Your task to perform on an android device: Open Google Chrome Image 0: 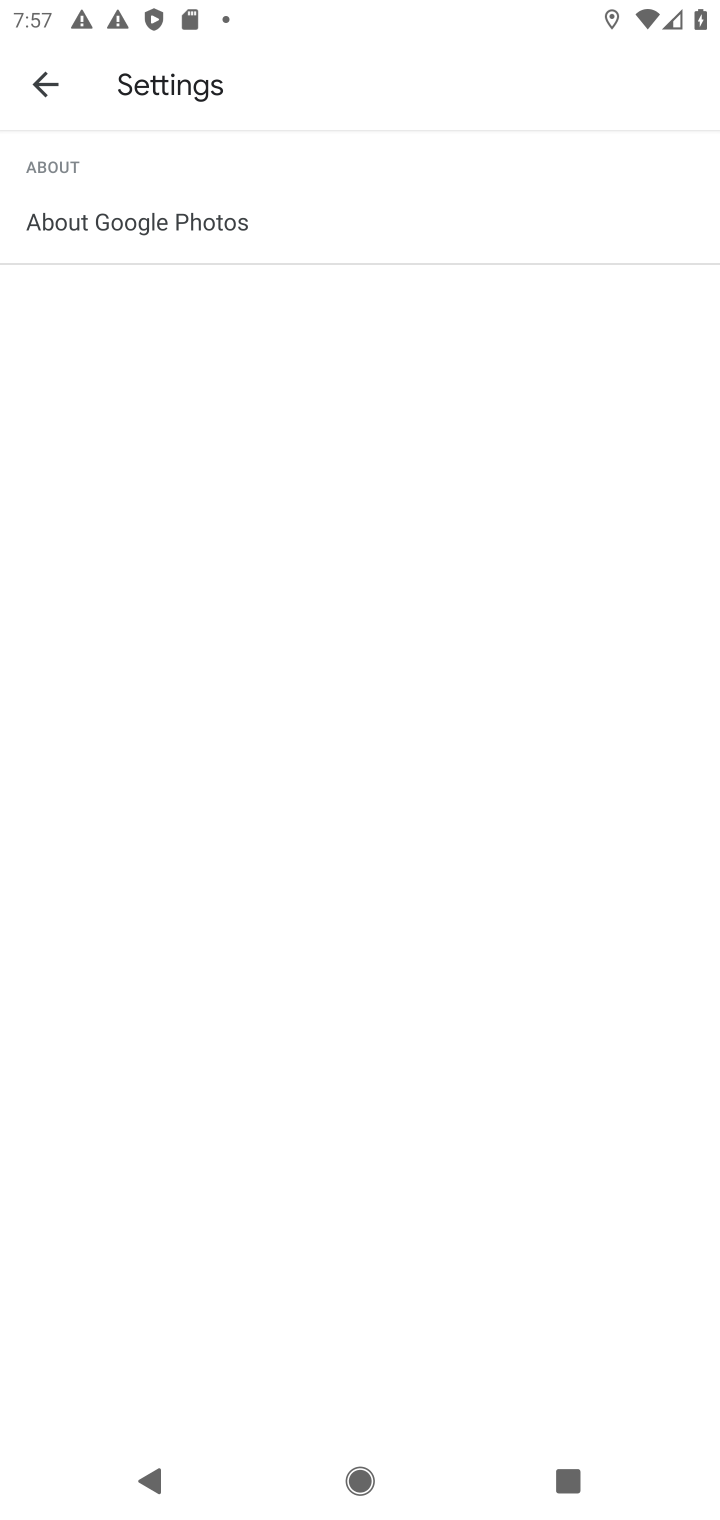
Step 0: press home button
Your task to perform on an android device: Open Google Chrome Image 1: 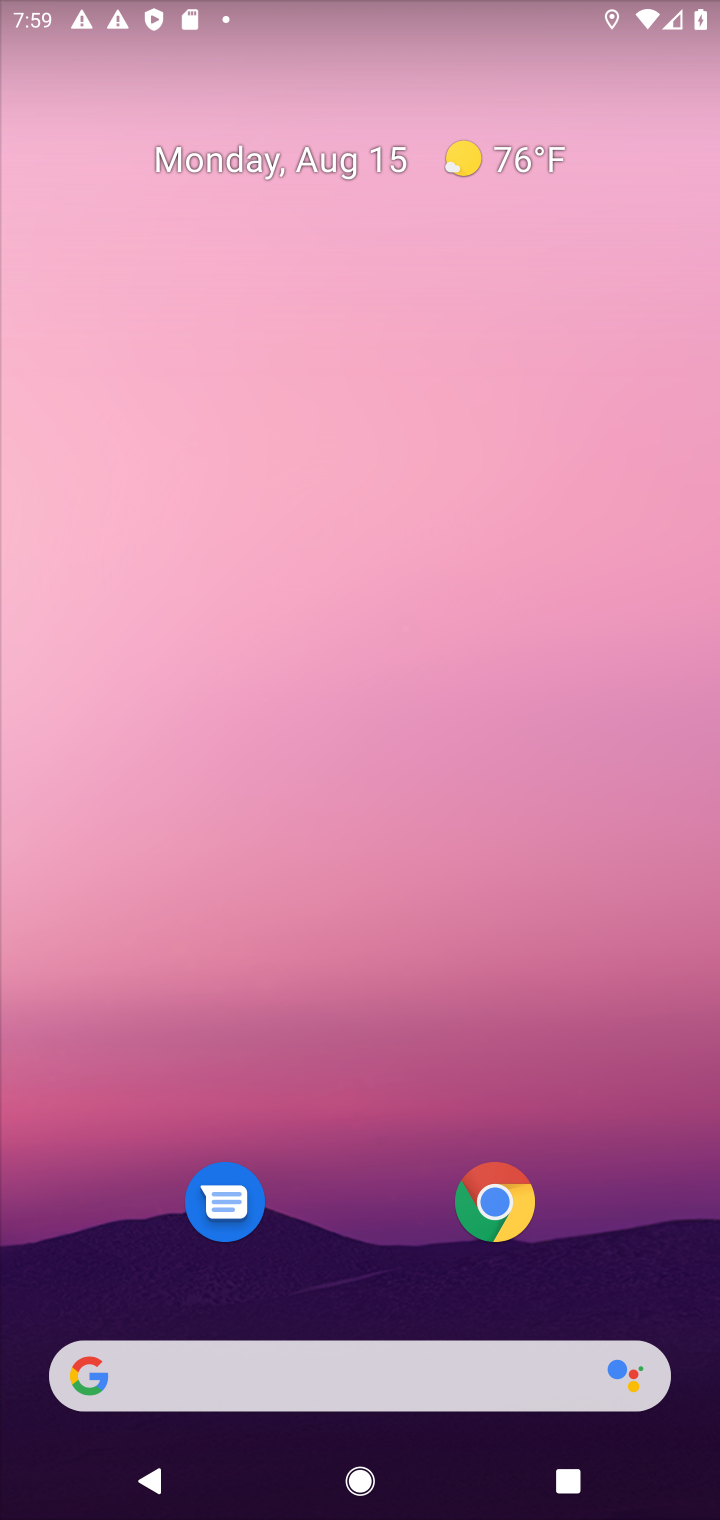
Step 1: drag from (663, 1267) to (345, 118)
Your task to perform on an android device: Open Google Chrome Image 2: 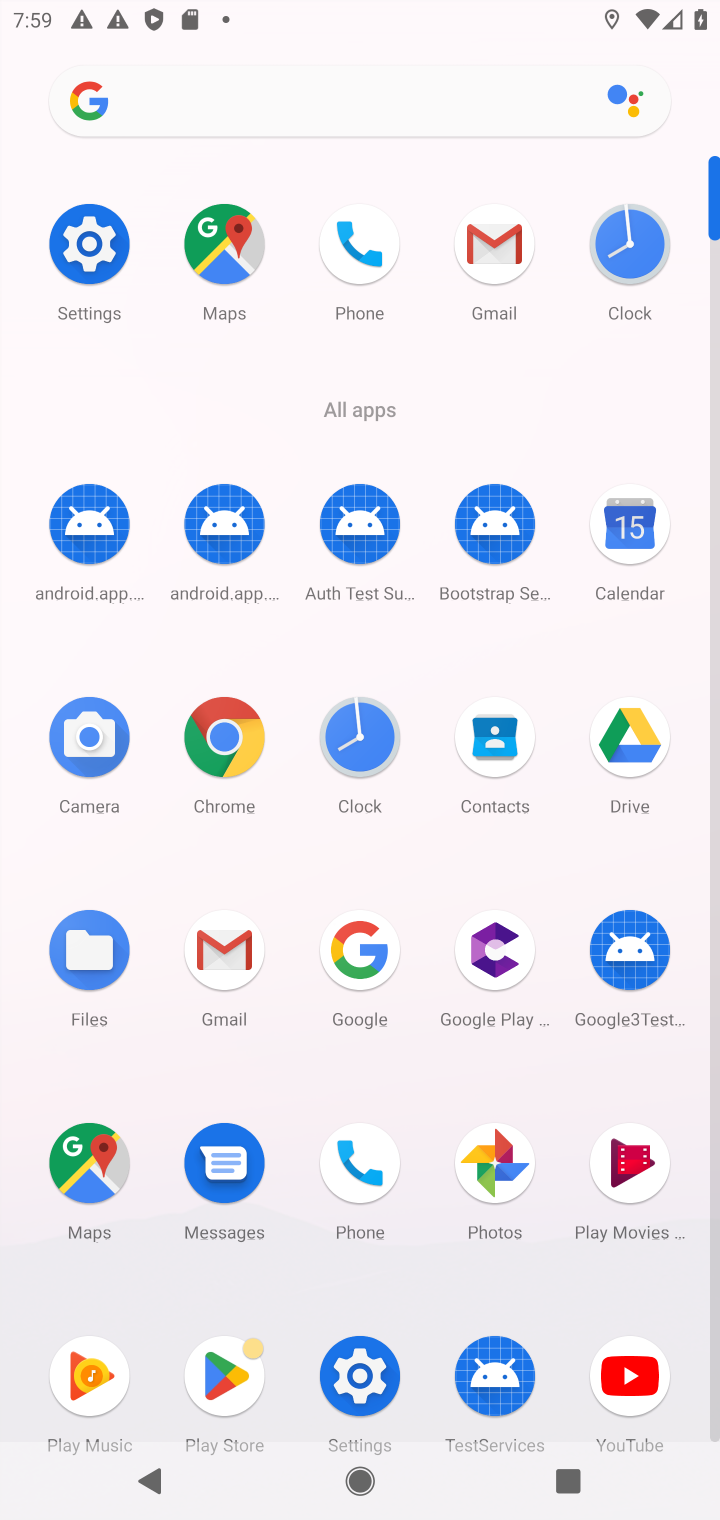
Step 2: click (374, 949)
Your task to perform on an android device: Open Google Chrome Image 3: 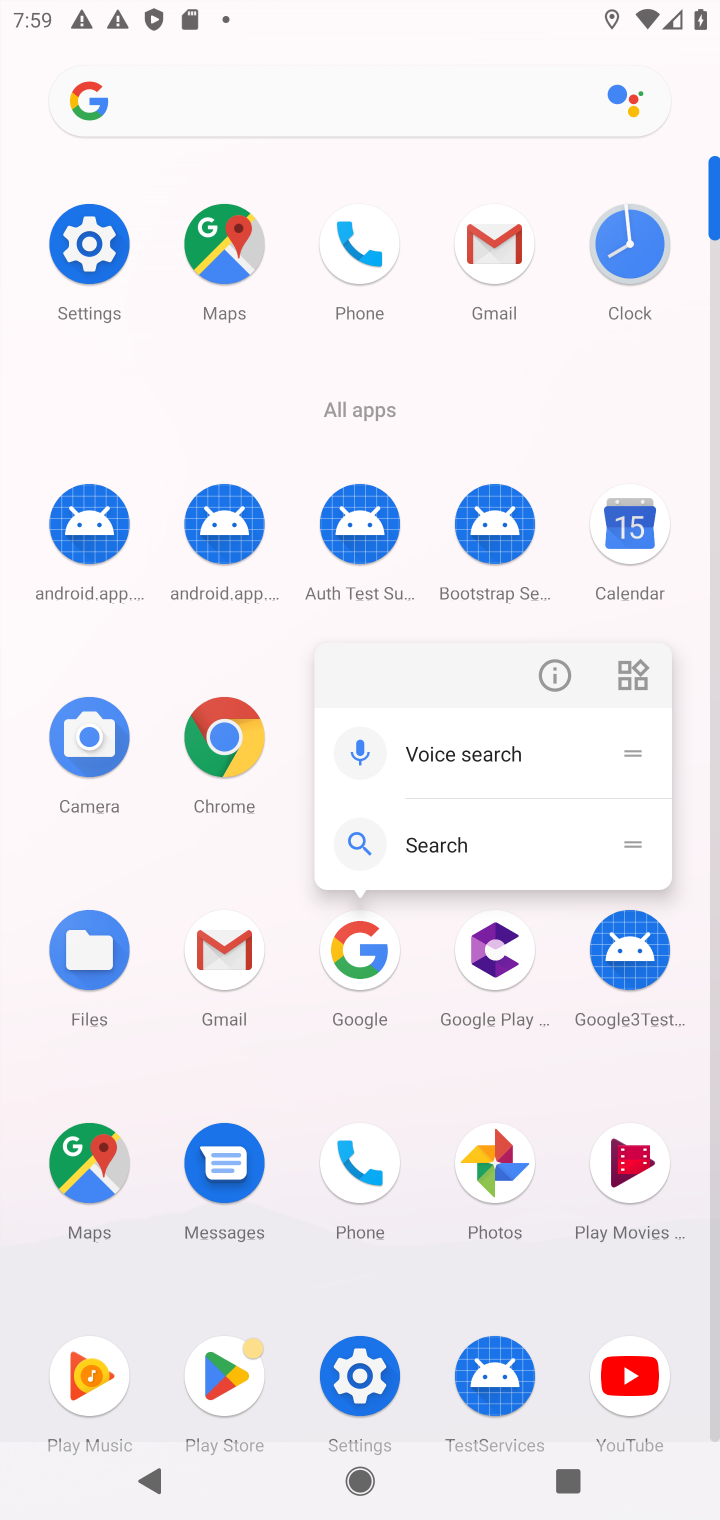
Step 3: click (373, 951)
Your task to perform on an android device: Open Google Chrome Image 4: 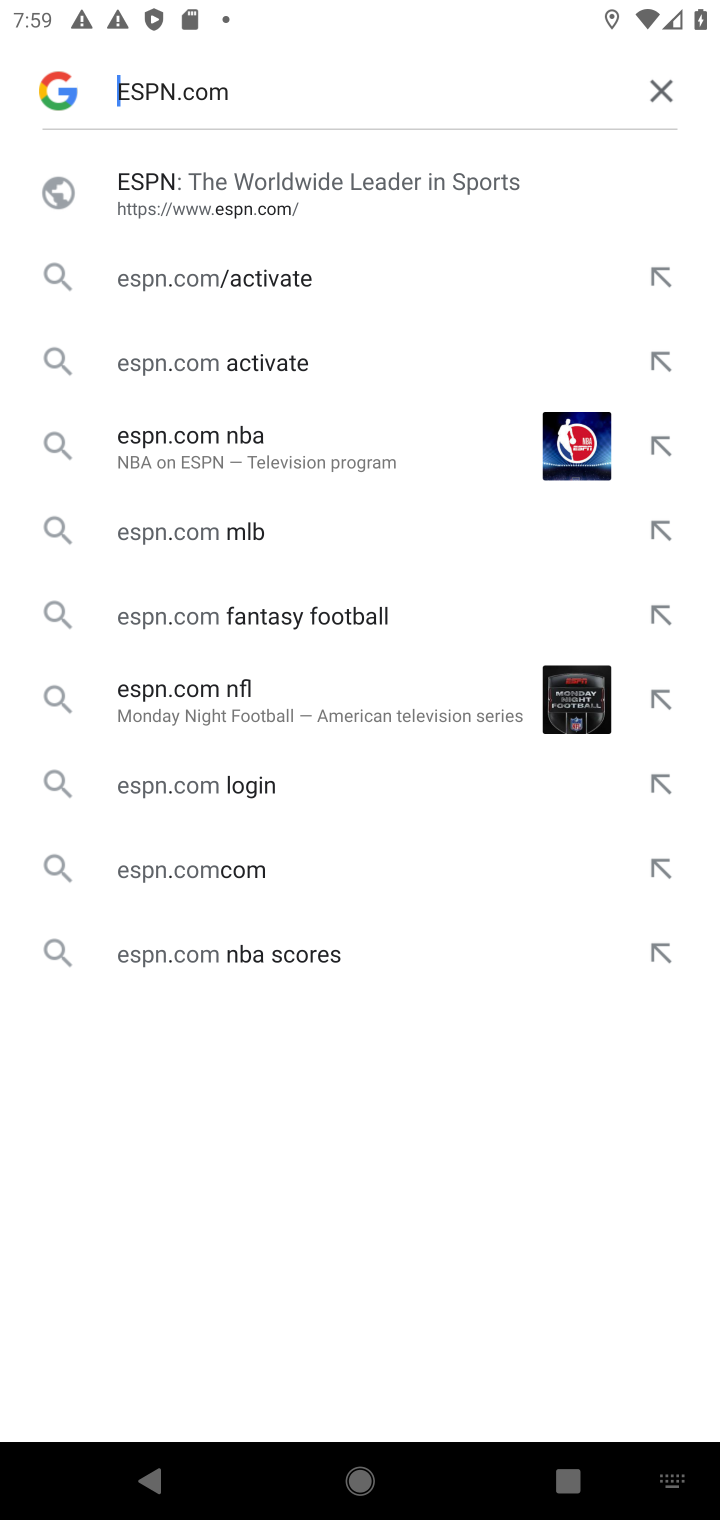
Step 4: click (659, 105)
Your task to perform on an android device: Open Google Chrome Image 5: 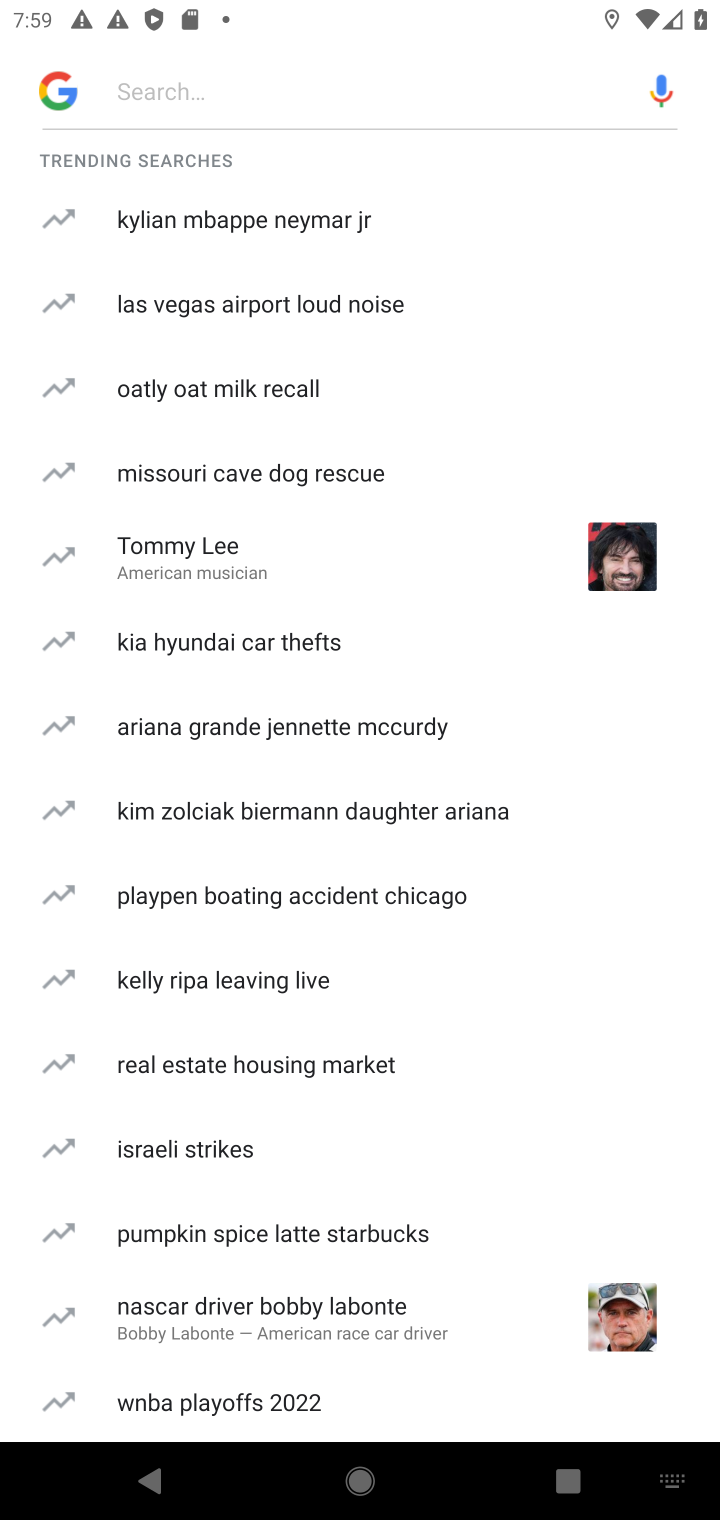
Step 5: task complete